Your task to perform on an android device: Go to location settings Image 0: 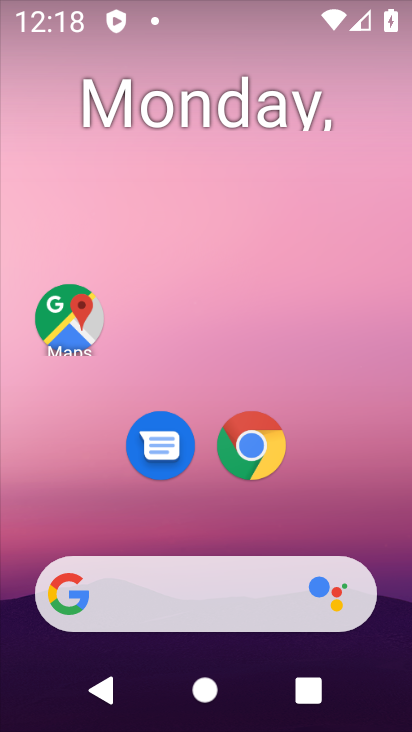
Step 0: drag from (334, 514) to (288, 20)
Your task to perform on an android device: Go to location settings Image 1: 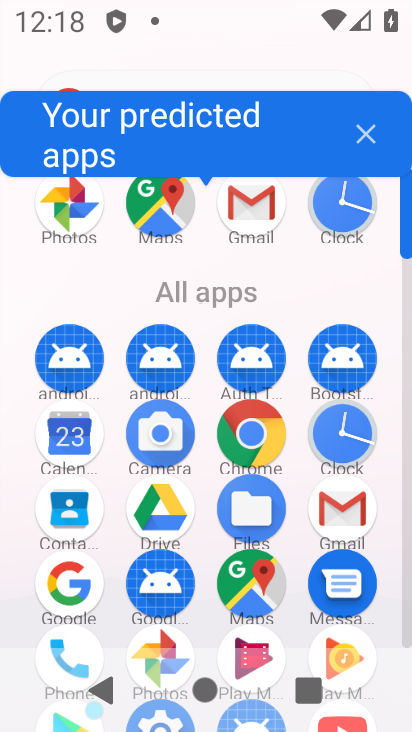
Step 1: drag from (292, 558) to (306, 263)
Your task to perform on an android device: Go to location settings Image 2: 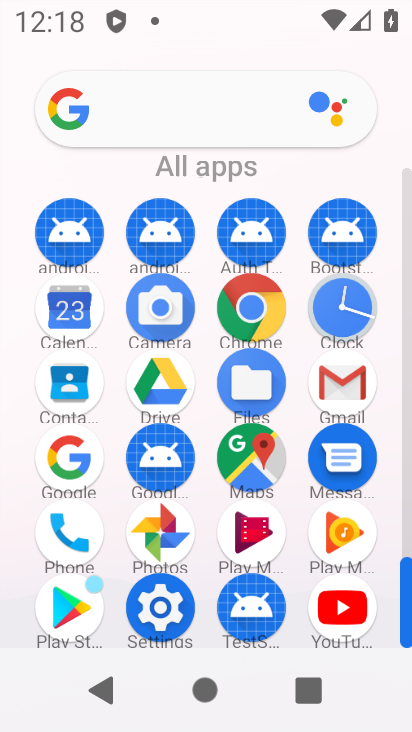
Step 2: click (158, 606)
Your task to perform on an android device: Go to location settings Image 3: 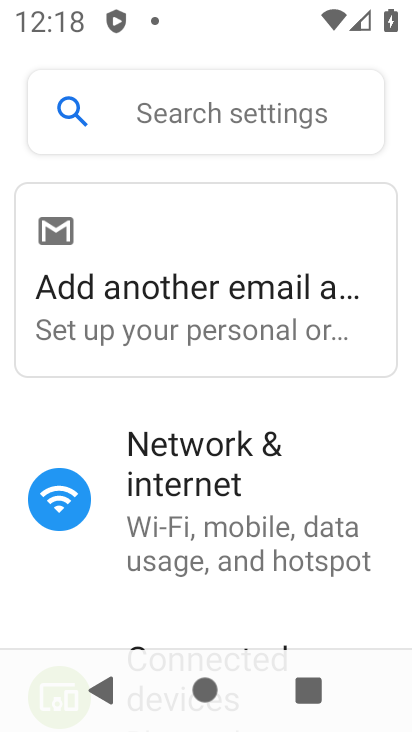
Step 3: drag from (292, 598) to (342, 338)
Your task to perform on an android device: Go to location settings Image 4: 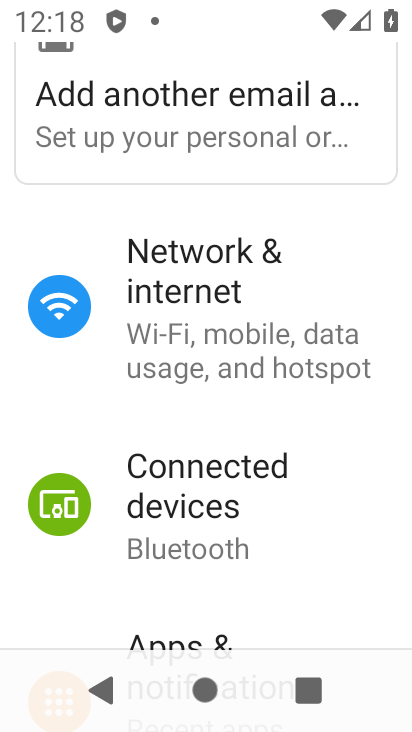
Step 4: drag from (285, 571) to (342, 341)
Your task to perform on an android device: Go to location settings Image 5: 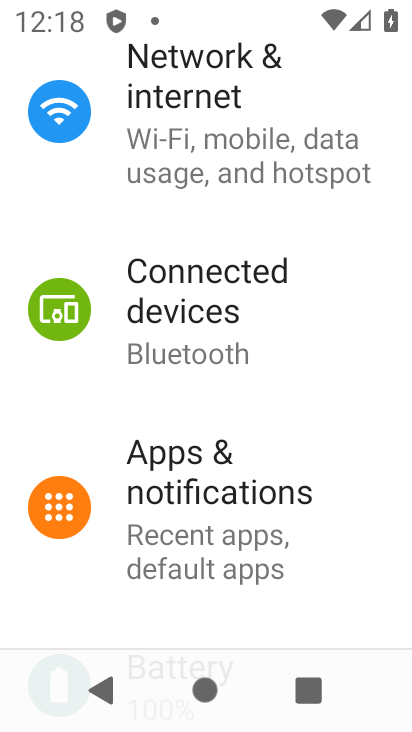
Step 5: drag from (290, 591) to (349, 392)
Your task to perform on an android device: Go to location settings Image 6: 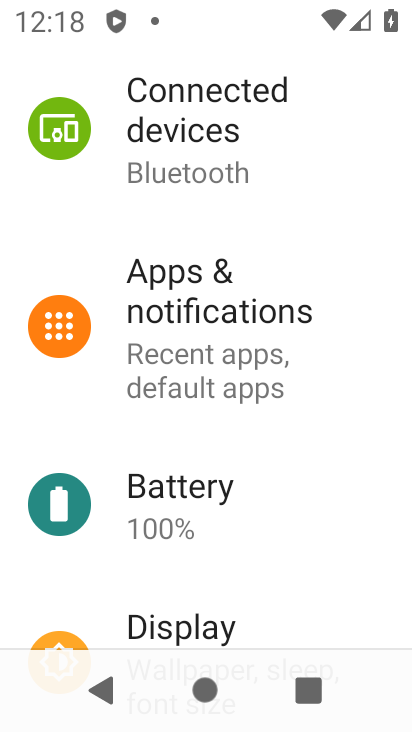
Step 6: drag from (301, 555) to (356, 408)
Your task to perform on an android device: Go to location settings Image 7: 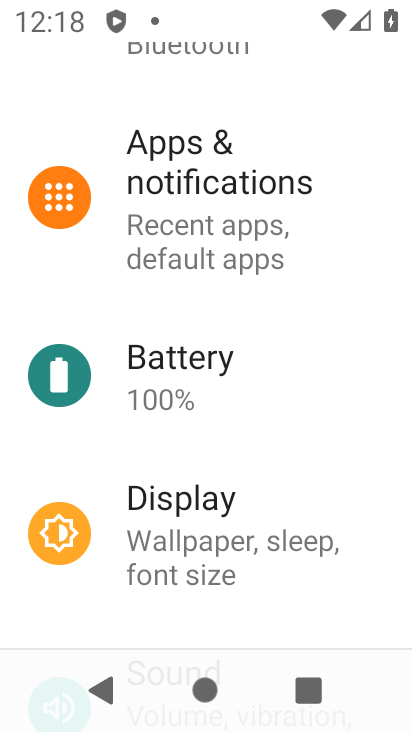
Step 7: drag from (287, 619) to (352, 462)
Your task to perform on an android device: Go to location settings Image 8: 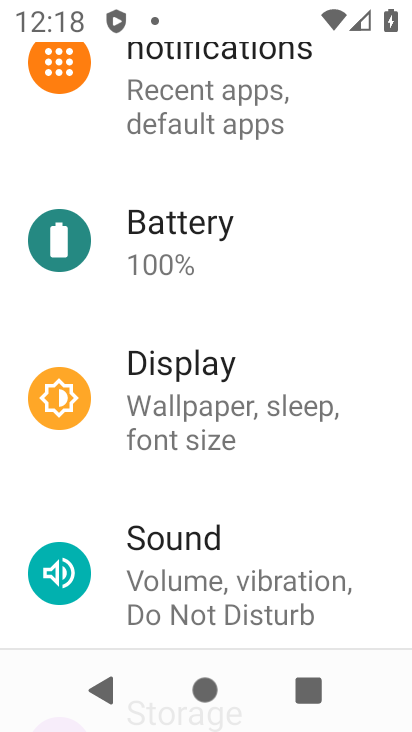
Step 8: drag from (289, 560) to (346, 380)
Your task to perform on an android device: Go to location settings Image 9: 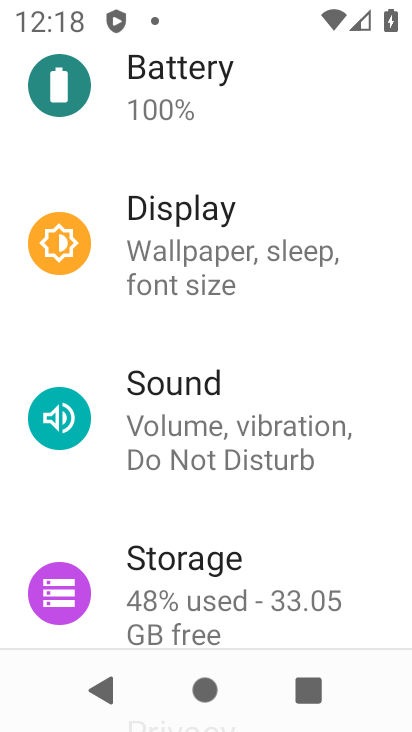
Step 9: drag from (284, 557) to (317, 325)
Your task to perform on an android device: Go to location settings Image 10: 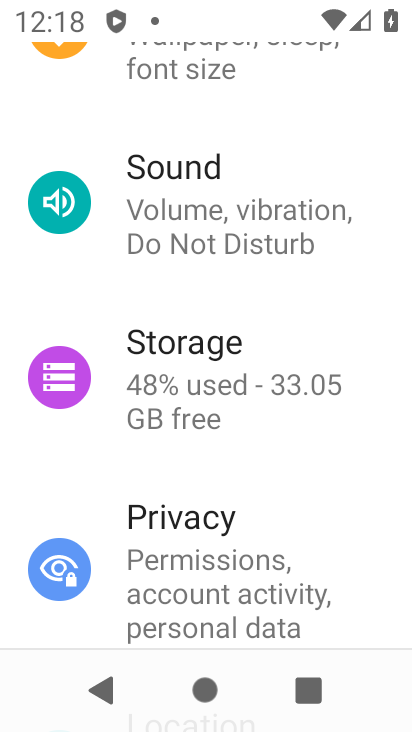
Step 10: drag from (302, 528) to (337, 375)
Your task to perform on an android device: Go to location settings Image 11: 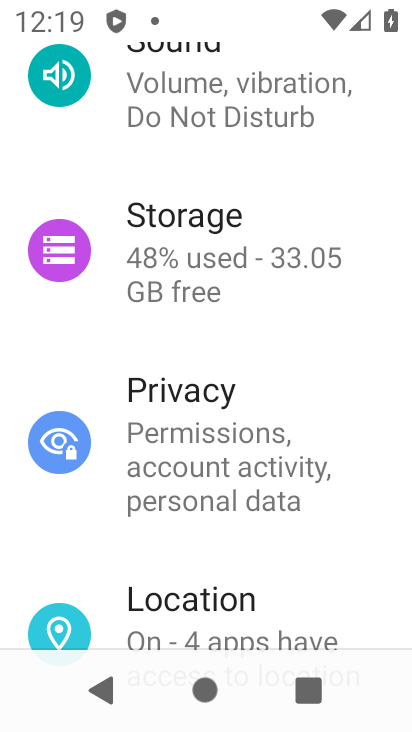
Step 11: drag from (290, 591) to (355, 418)
Your task to perform on an android device: Go to location settings Image 12: 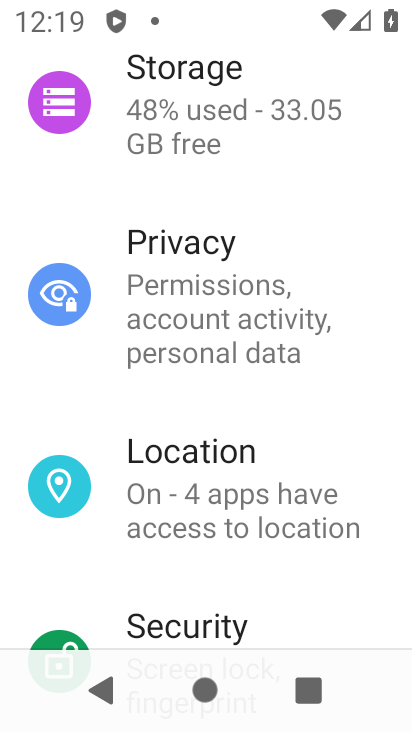
Step 12: click (240, 460)
Your task to perform on an android device: Go to location settings Image 13: 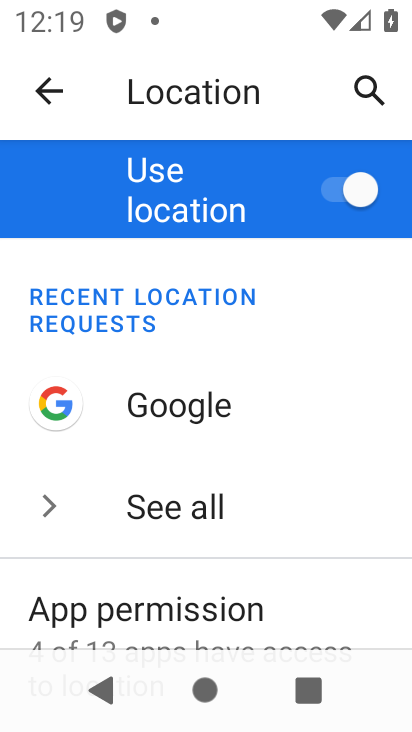
Step 13: task complete